Your task to perform on an android device: change the clock display to analog Image 0: 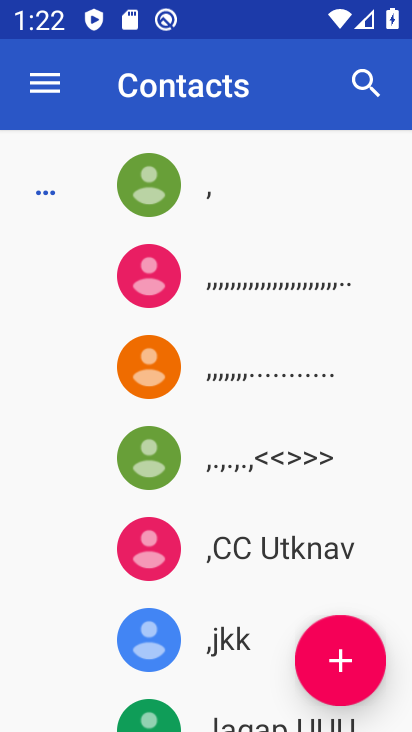
Step 0: press home button
Your task to perform on an android device: change the clock display to analog Image 1: 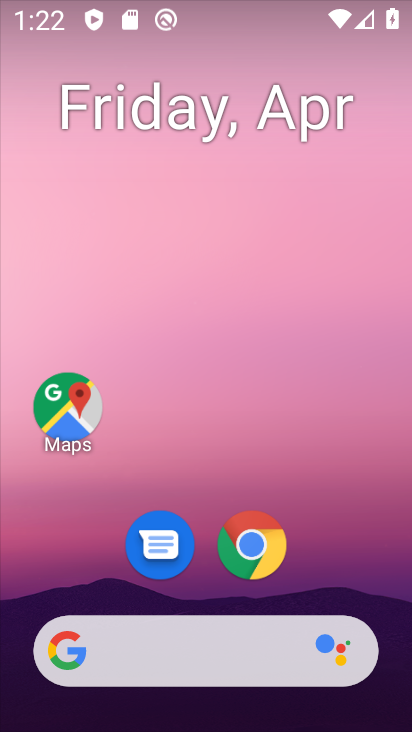
Step 1: drag from (328, 524) to (311, 145)
Your task to perform on an android device: change the clock display to analog Image 2: 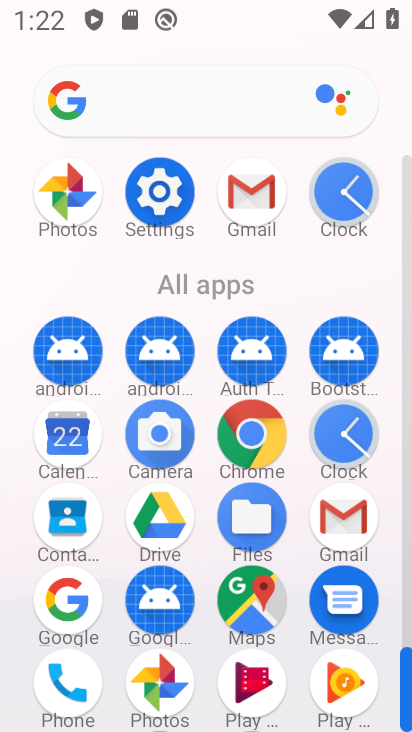
Step 2: click (339, 444)
Your task to perform on an android device: change the clock display to analog Image 3: 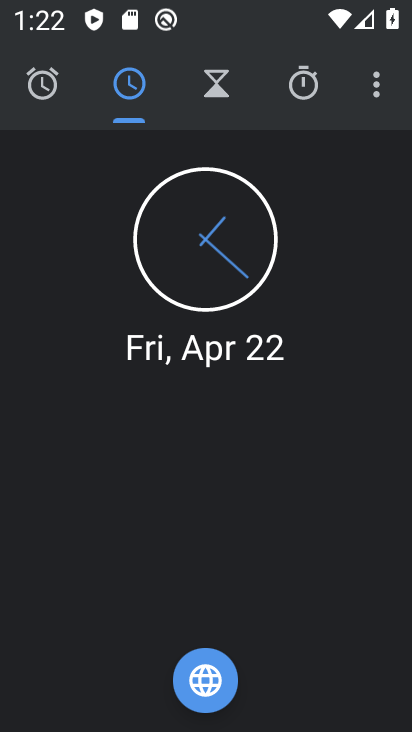
Step 3: click (384, 83)
Your task to perform on an android device: change the clock display to analog Image 4: 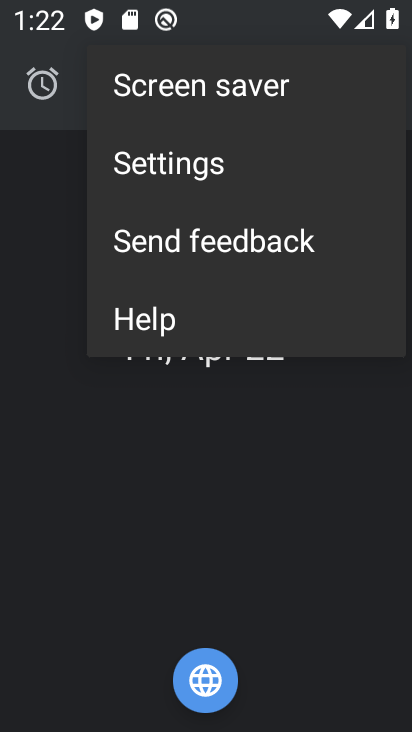
Step 4: click (231, 173)
Your task to perform on an android device: change the clock display to analog Image 5: 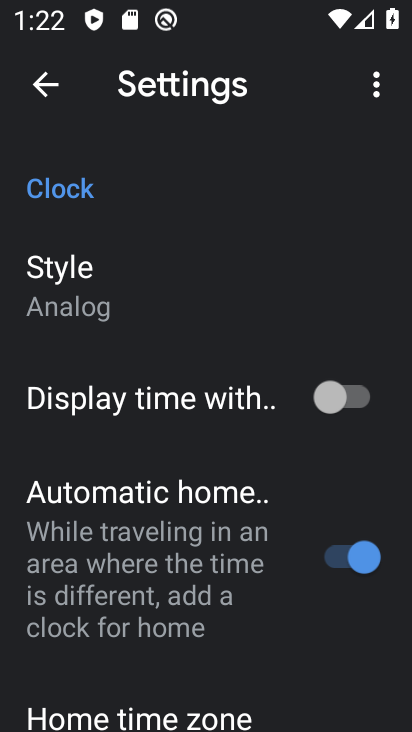
Step 5: task complete